Your task to perform on an android device: open the mobile data screen to see how much data has been used Image 0: 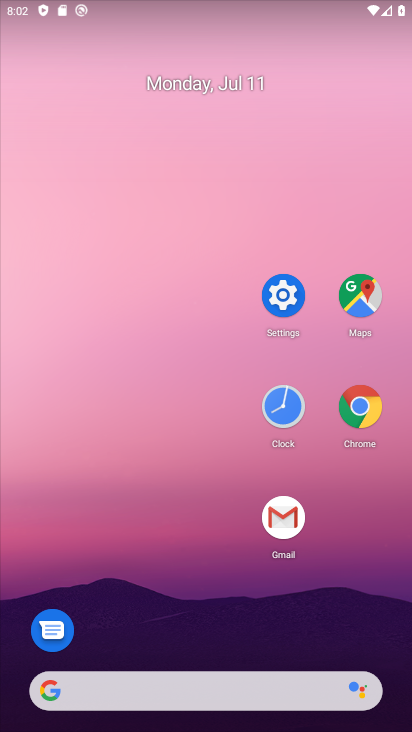
Step 0: click (298, 306)
Your task to perform on an android device: open the mobile data screen to see how much data has been used Image 1: 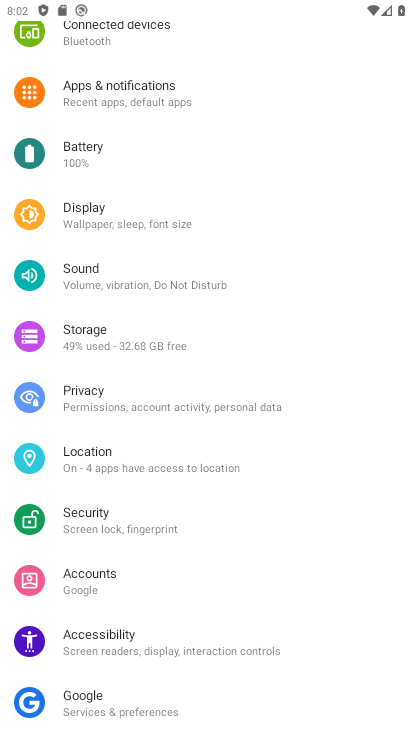
Step 1: drag from (298, 306) to (342, 593)
Your task to perform on an android device: open the mobile data screen to see how much data has been used Image 2: 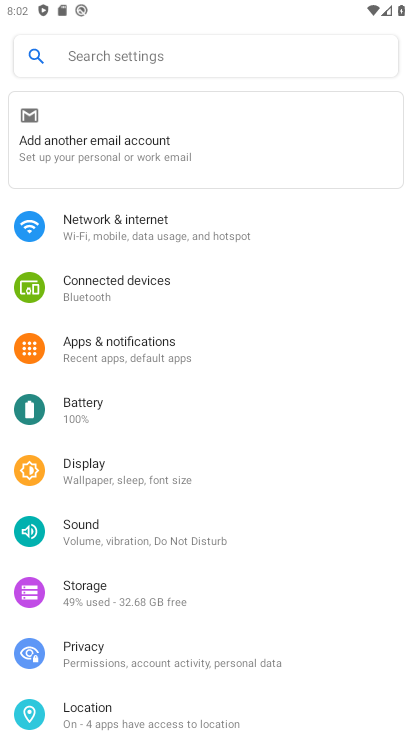
Step 2: click (193, 219)
Your task to perform on an android device: open the mobile data screen to see how much data has been used Image 3: 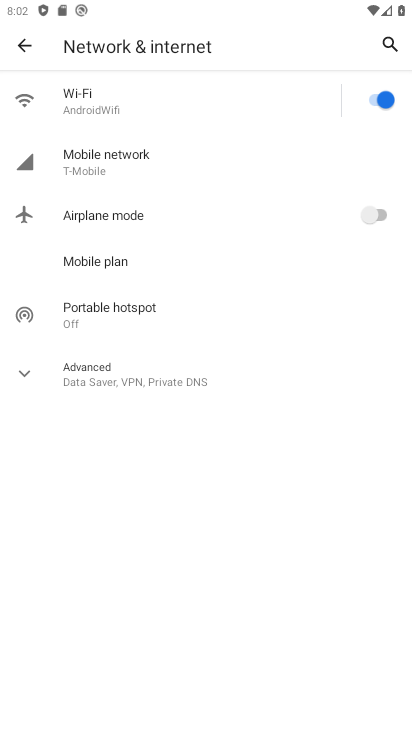
Step 3: click (199, 149)
Your task to perform on an android device: open the mobile data screen to see how much data has been used Image 4: 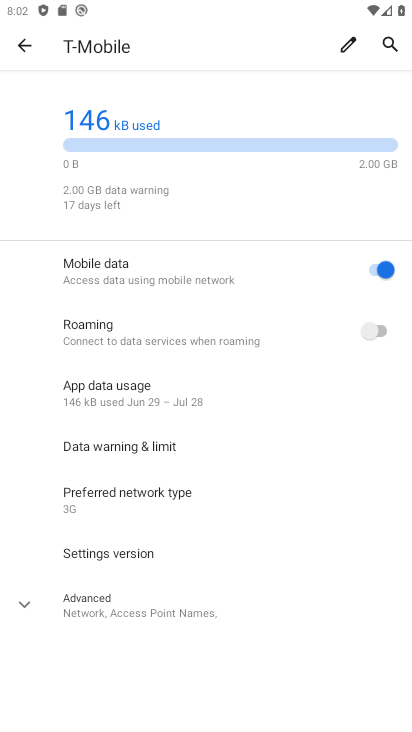
Step 4: task complete